Your task to perform on an android device: star an email in the gmail app Image 0: 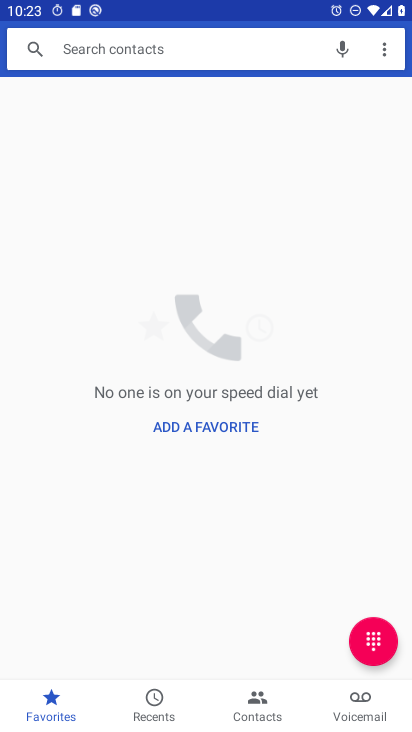
Step 0: press home button
Your task to perform on an android device: star an email in the gmail app Image 1: 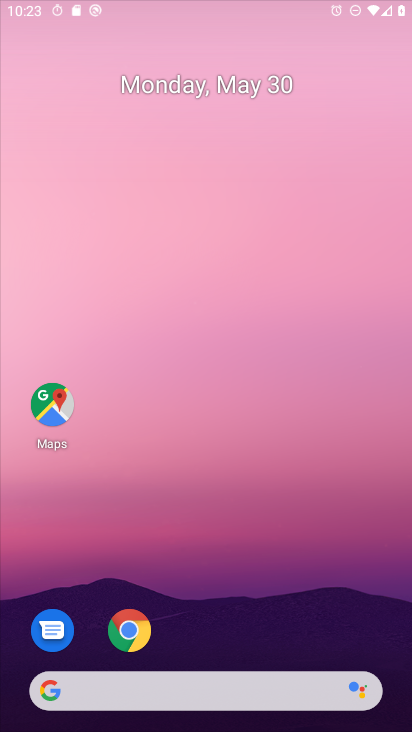
Step 1: drag from (330, 636) to (333, 22)
Your task to perform on an android device: star an email in the gmail app Image 2: 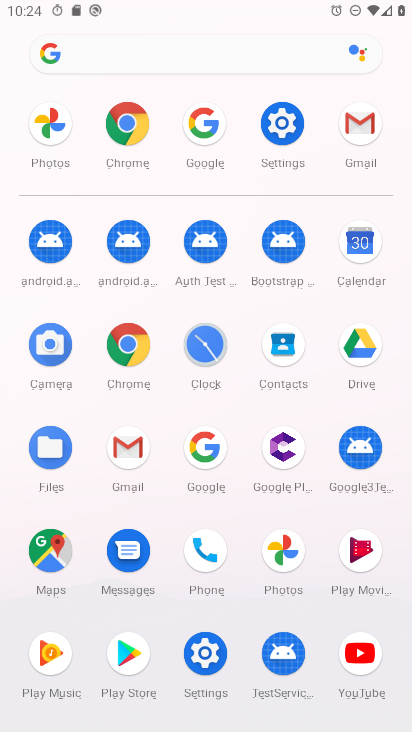
Step 2: click (127, 461)
Your task to perform on an android device: star an email in the gmail app Image 3: 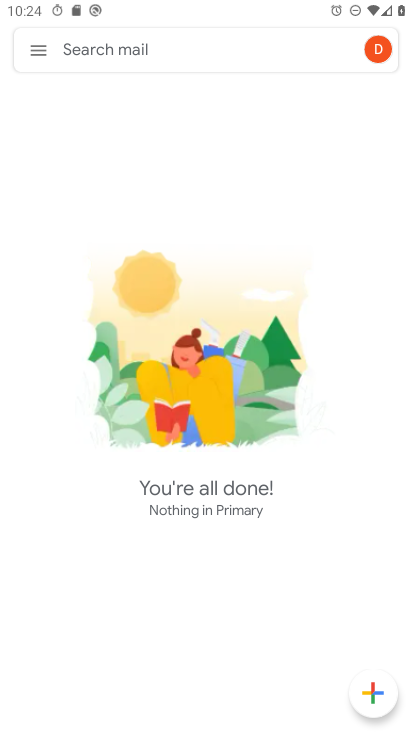
Step 3: task complete